Your task to perform on an android device: When is my next meeting? Image 0: 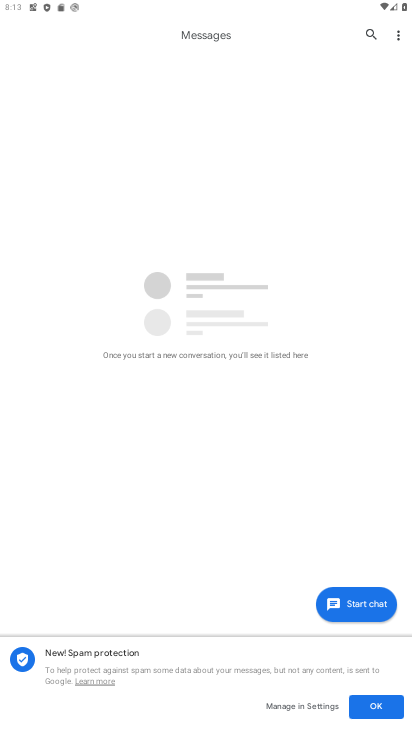
Step 0: press home button
Your task to perform on an android device: When is my next meeting? Image 1: 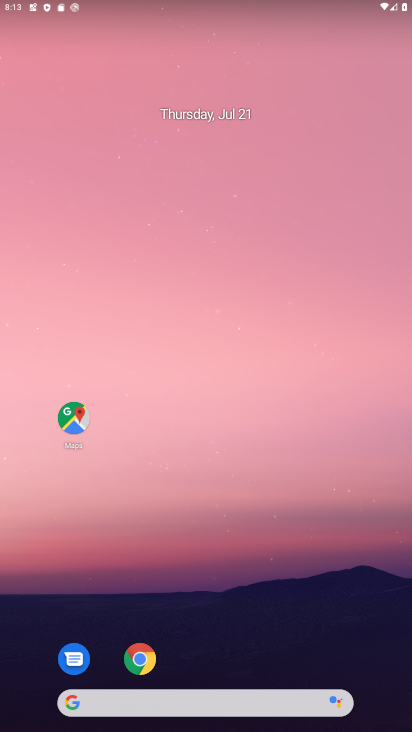
Step 1: drag from (221, 660) to (238, 126)
Your task to perform on an android device: When is my next meeting? Image 2: 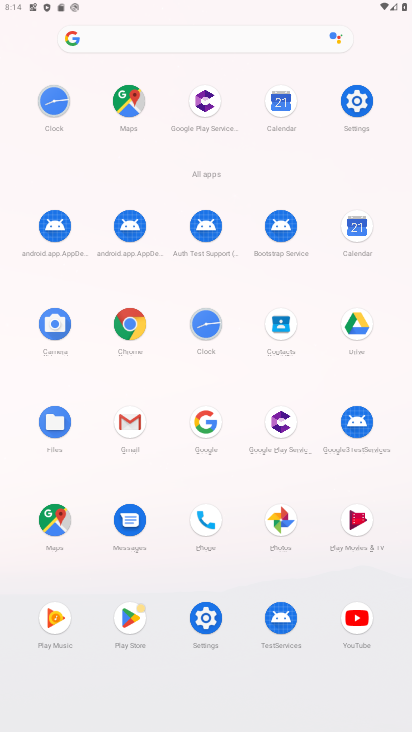
Step 2: click (352, 222)
Your task to perform on an android device: When is my next meeting? Image 3: 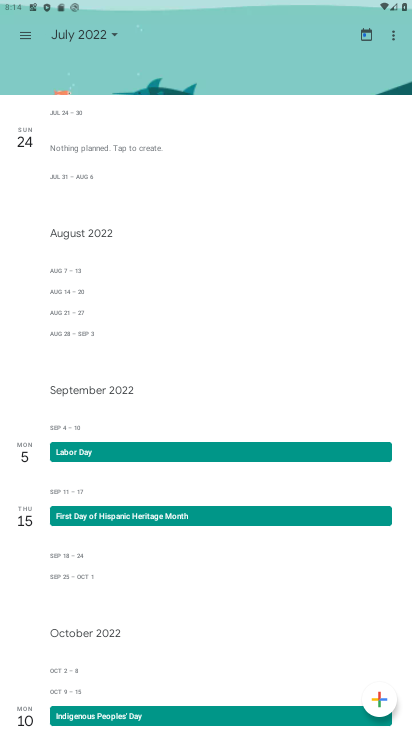
Step 3: task complete